Your task to perform on an android device: turn off priority inbox in the gmail app Image 0: 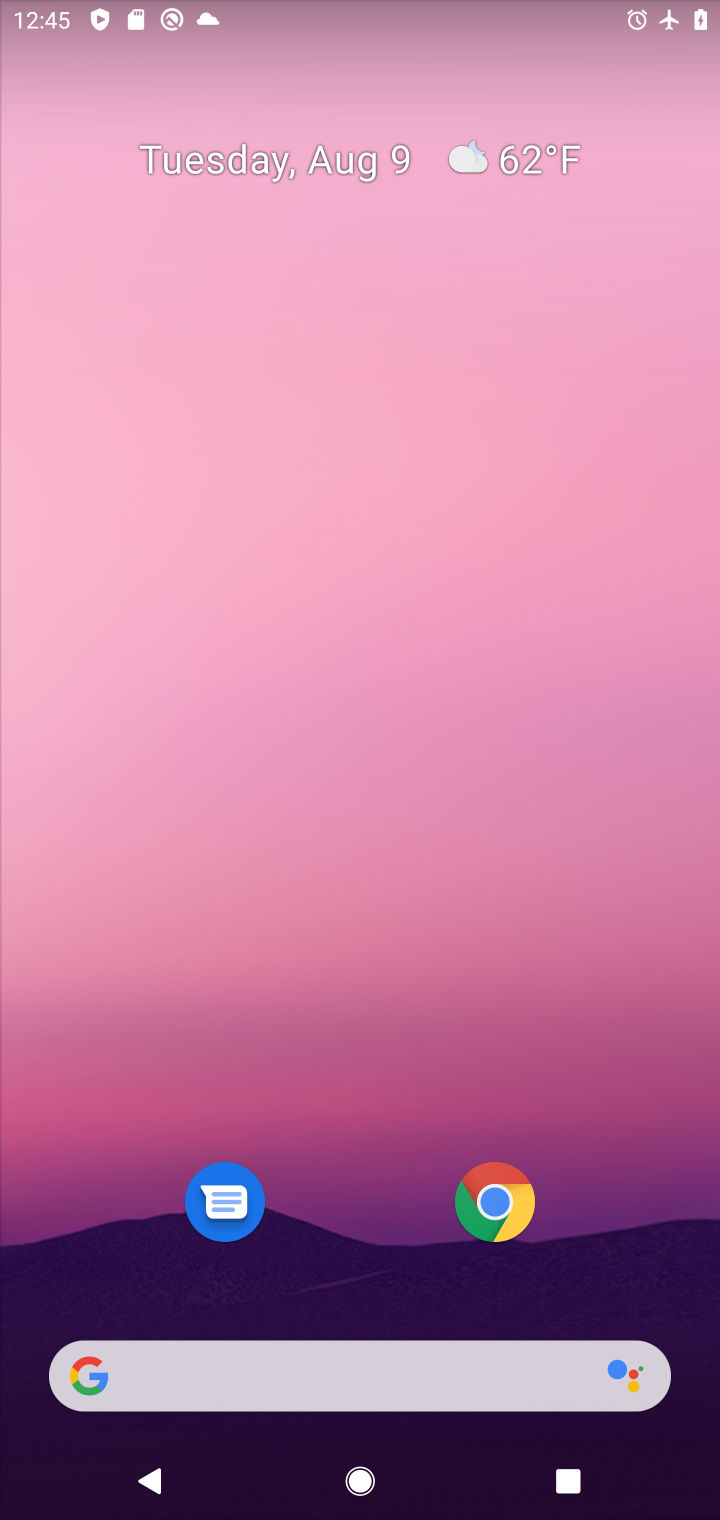
Step 0: click (236, 853)
Your task to perform on an android device: turn off priority inbox in the gmail app Image 1: 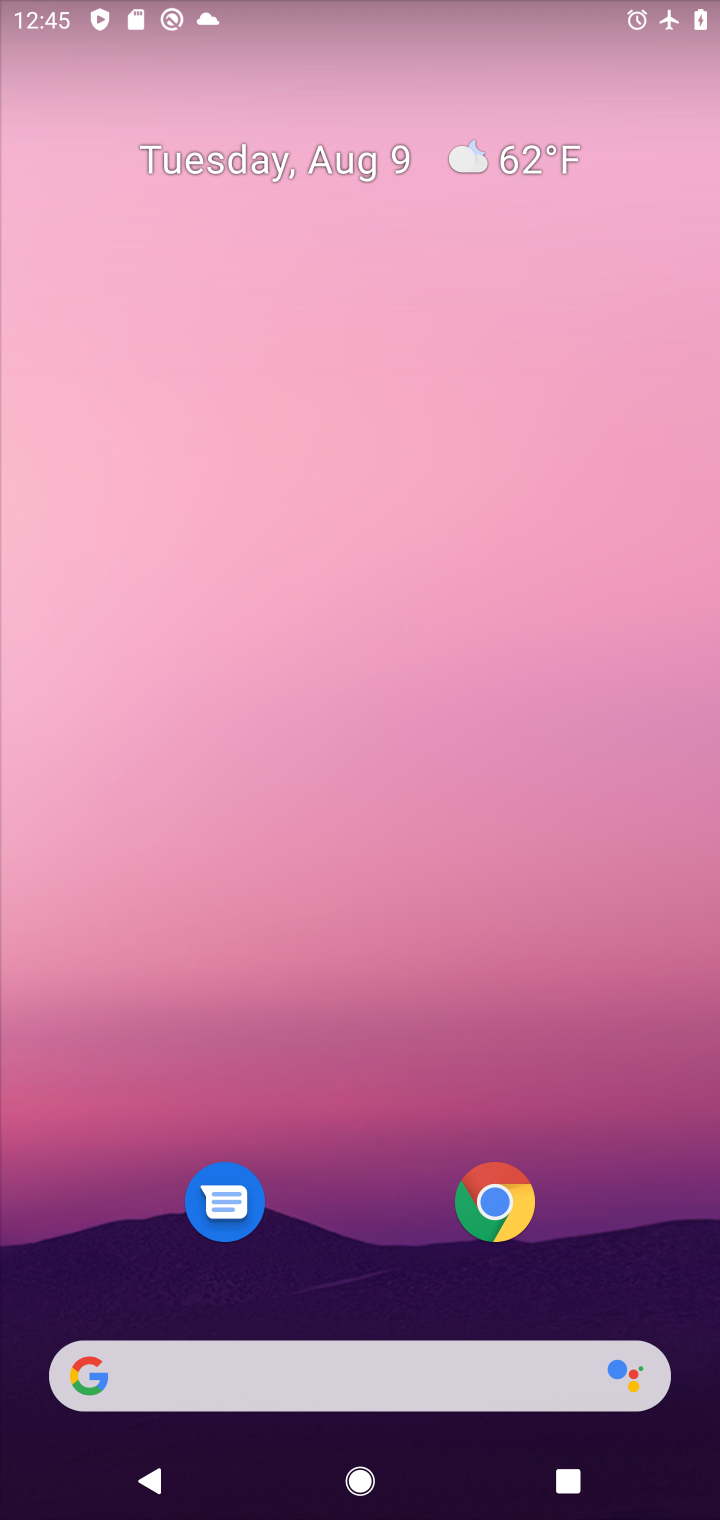
Step 1: drag from (507, 616) to (524, 148)
Your task to perform on an android device: turn off priority inbox in the gmail app Image 2: 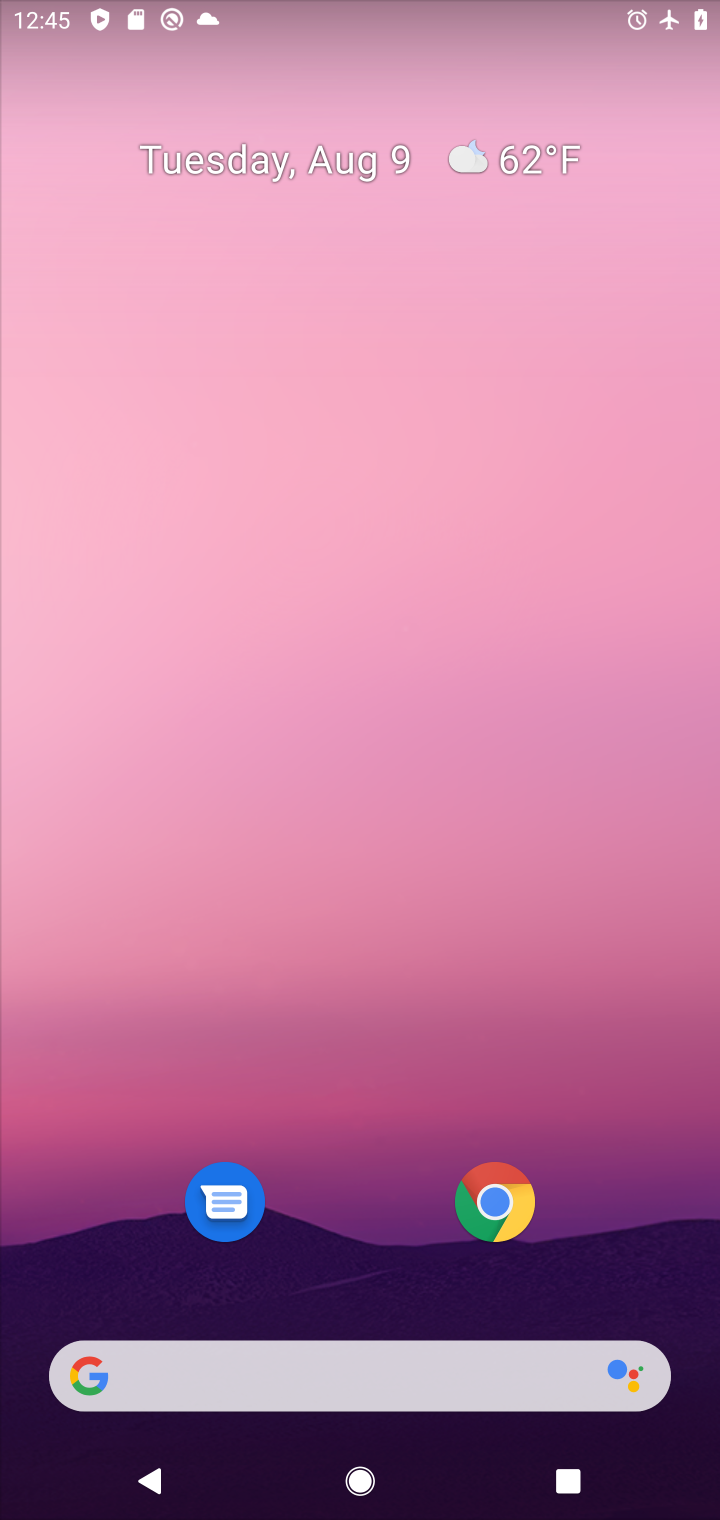
Step 2: click (239, 260)
Your task to perform on an android device: turn off priority inbox in the gmail app Image 3: 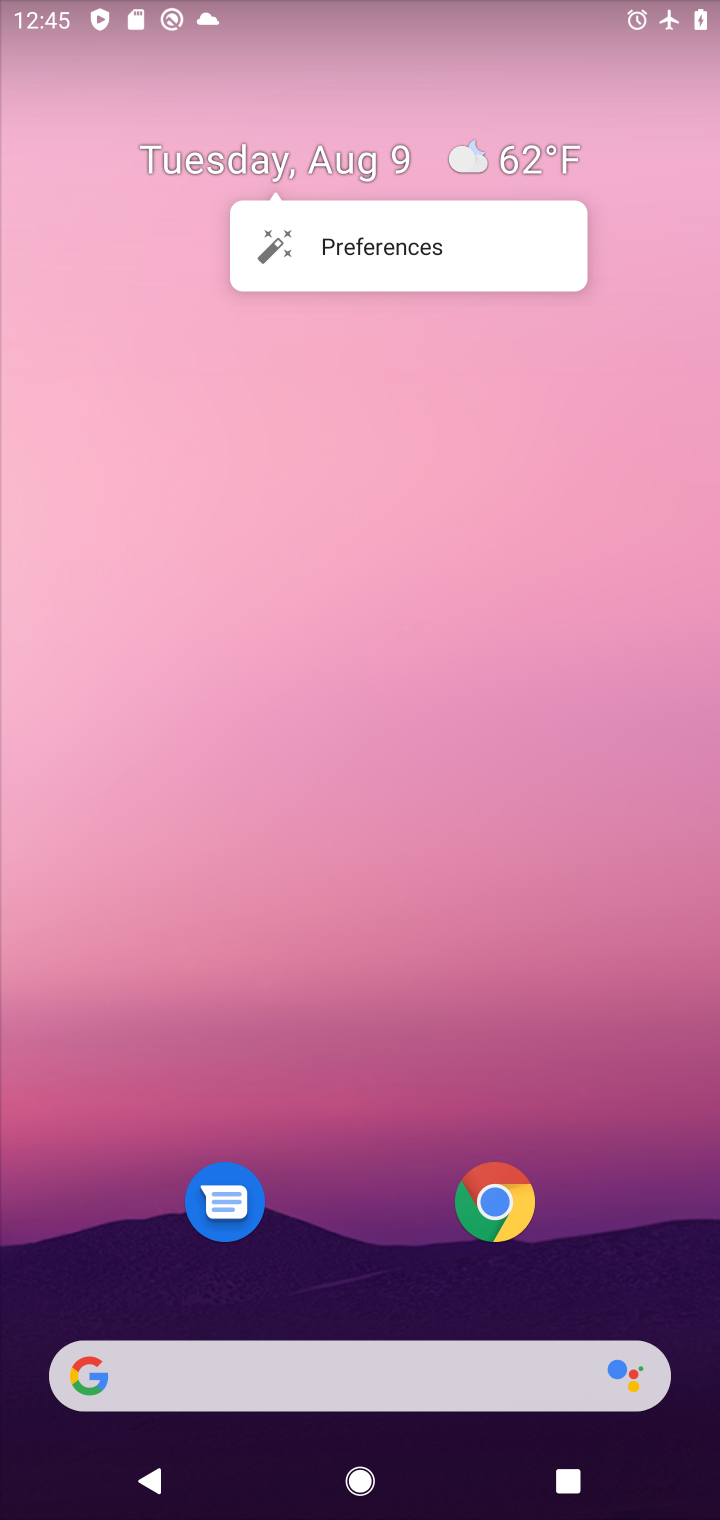
Step 3: click (293, 326)
Your task to perform on an android device: turn off priority inbox in the gmail app Image 4: 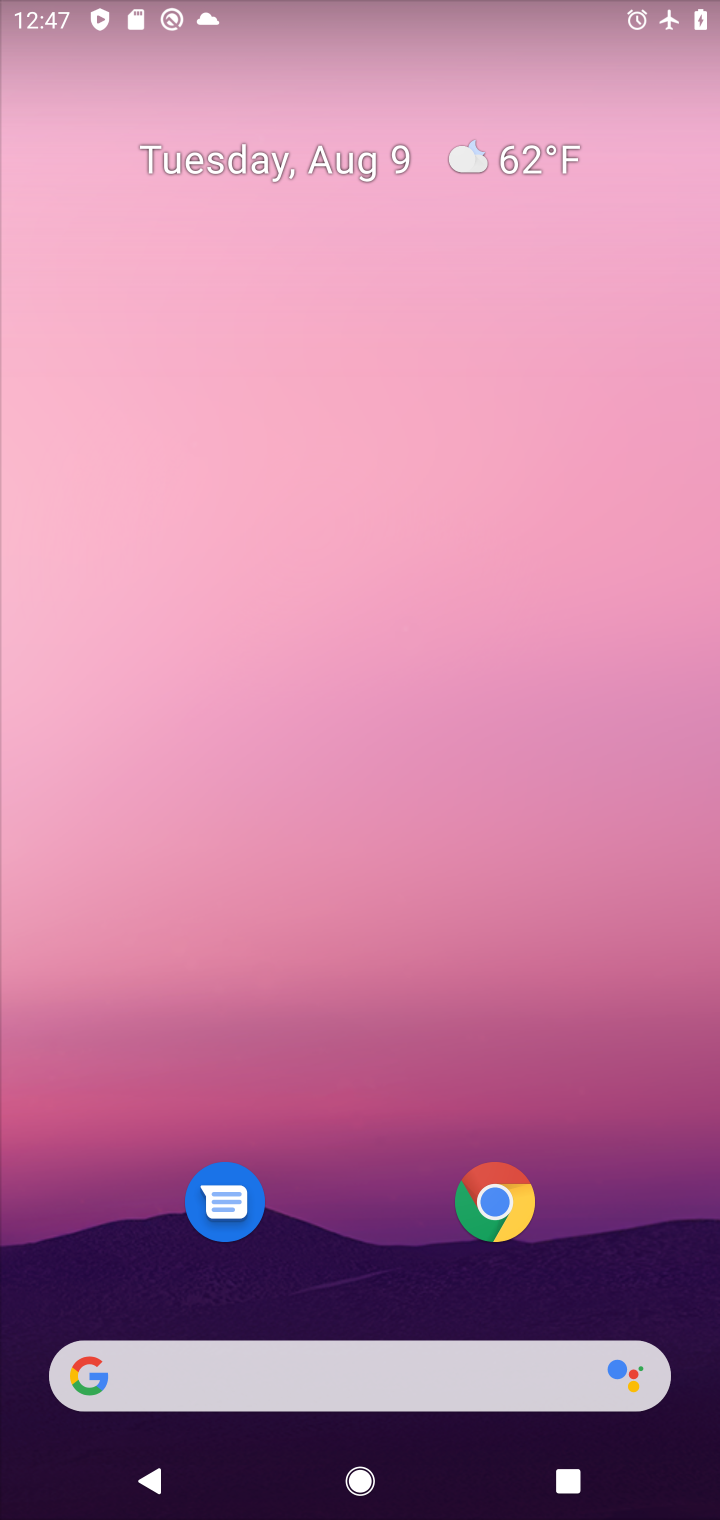
Step 4: drag from (355, 1233) to (427, 40)
Your task to perform on an android device: turn off priority inbox in the gmail app Image 5: 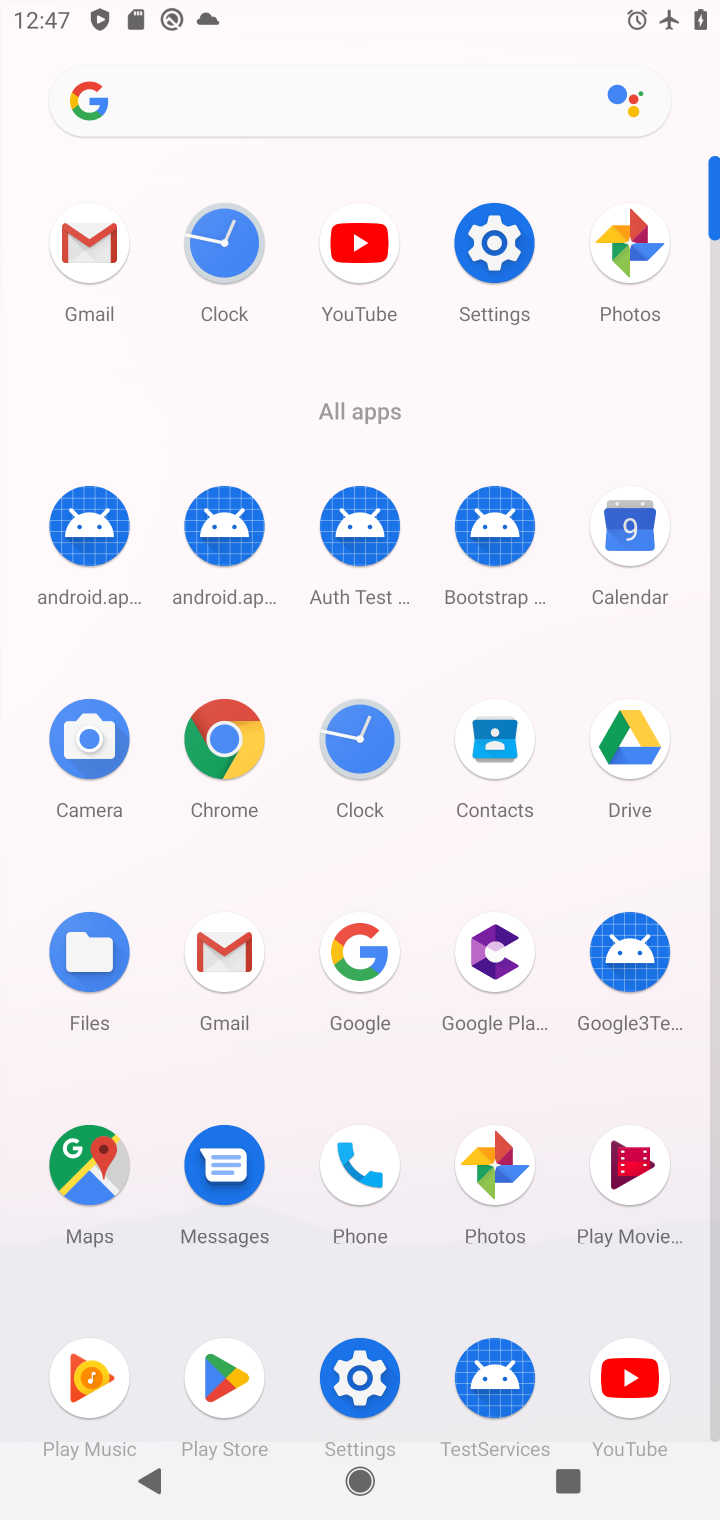
Step 5: click (89, 353)
Your task to perform on an android device: turn off priority inbox in the gmail app Image 6: 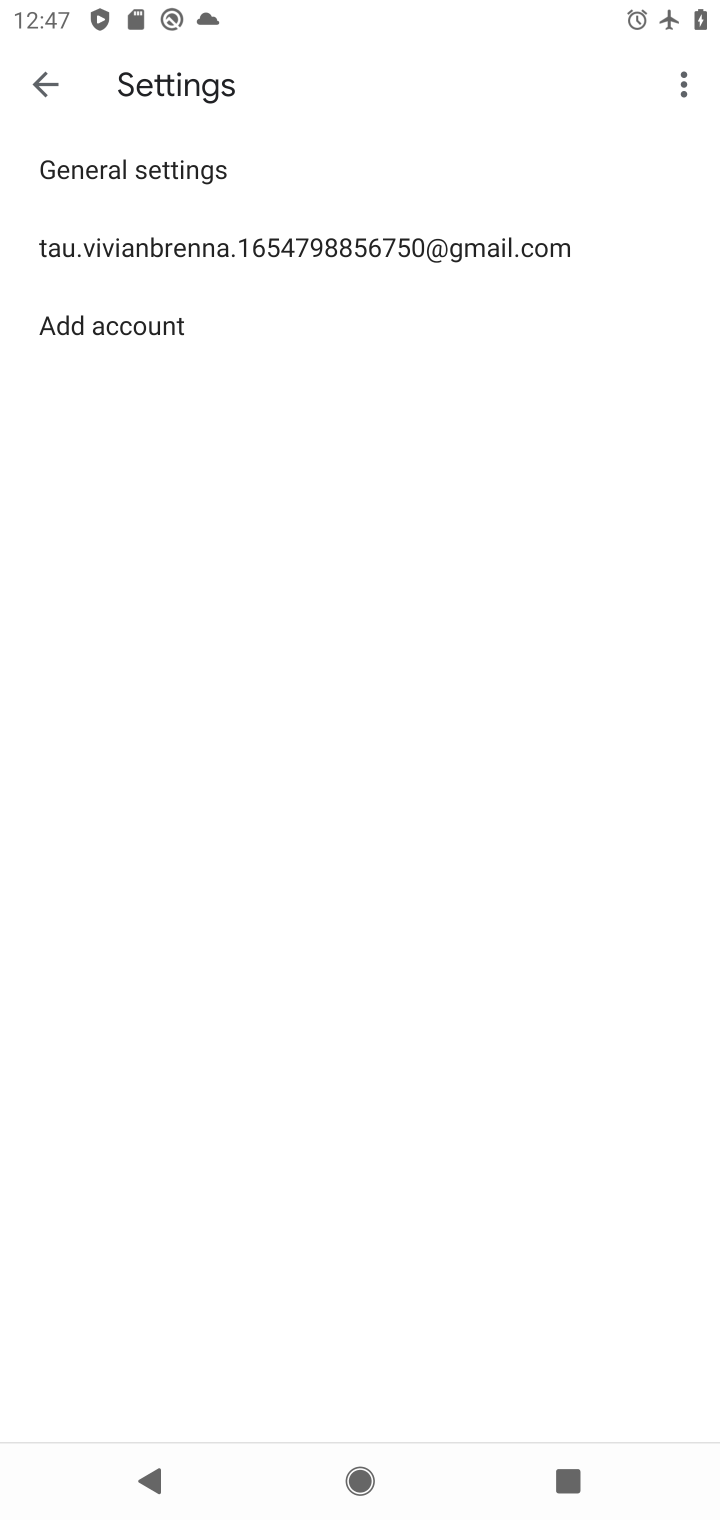
Step 6: click (200, 249)
Your task to perform on an android device: turn off priority inbox in the gmail app Image 7: 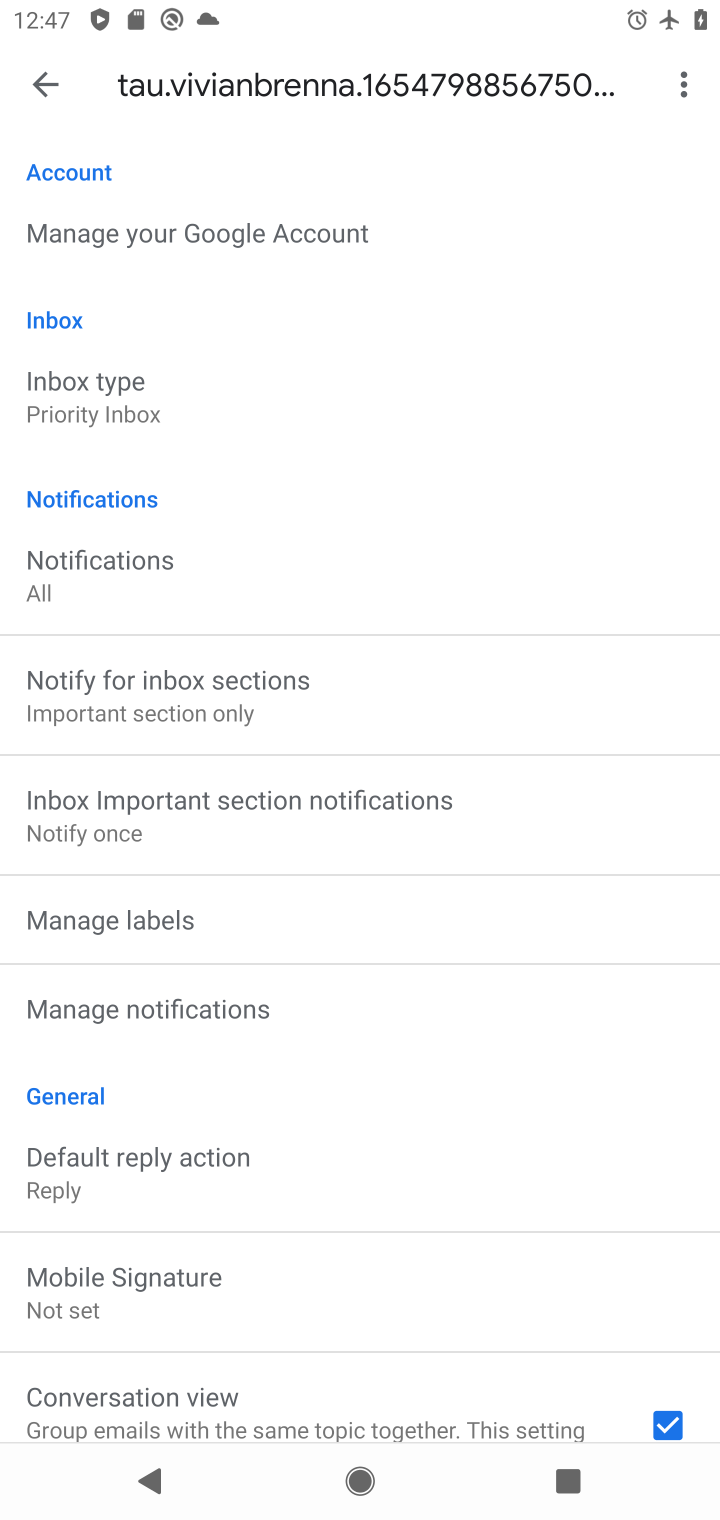
Step 7: click (123, 403)
Your task to perform on an android device: turn off priority inbox in the gmail app Image 8: 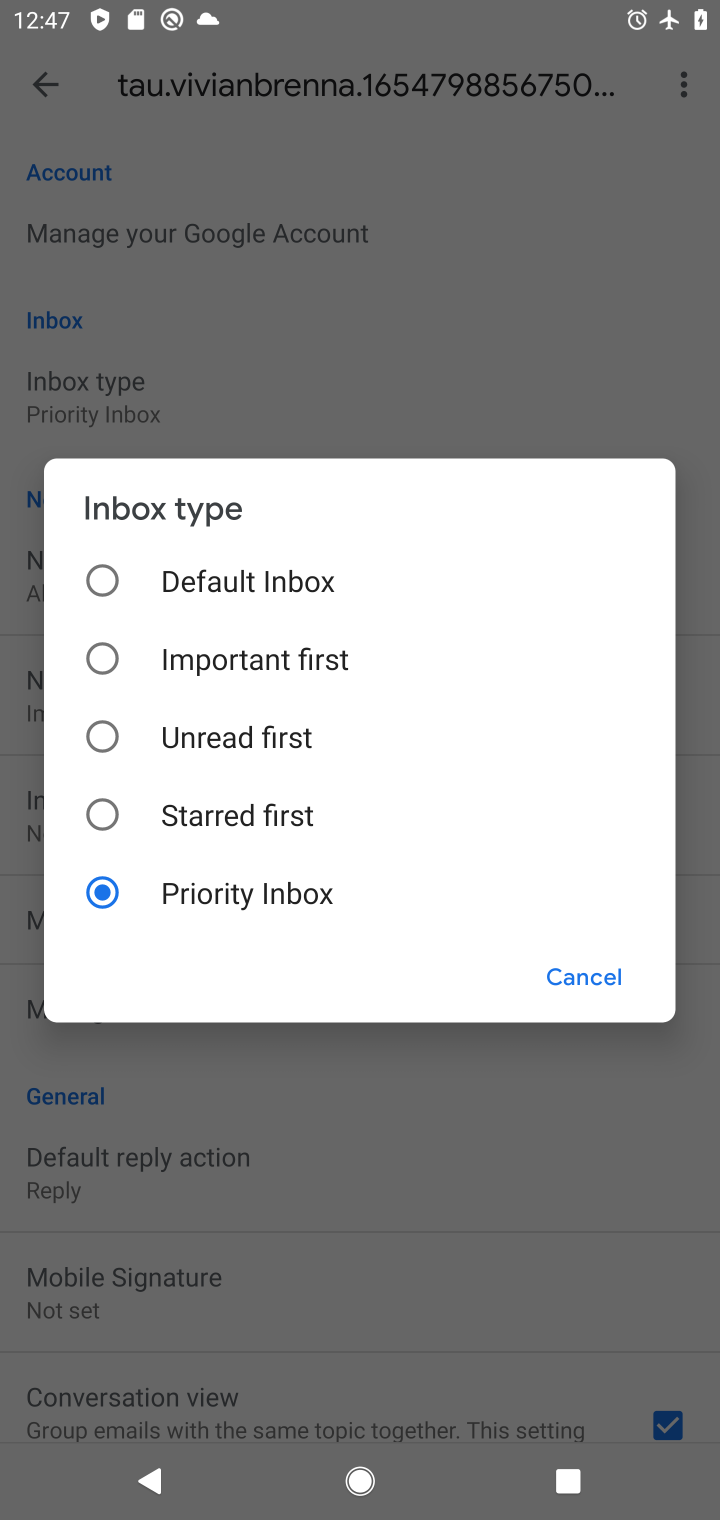
Step 8: click (94, 585)
Your task to perform on an android device: turn off priority inbox in the gmail app Image 9: 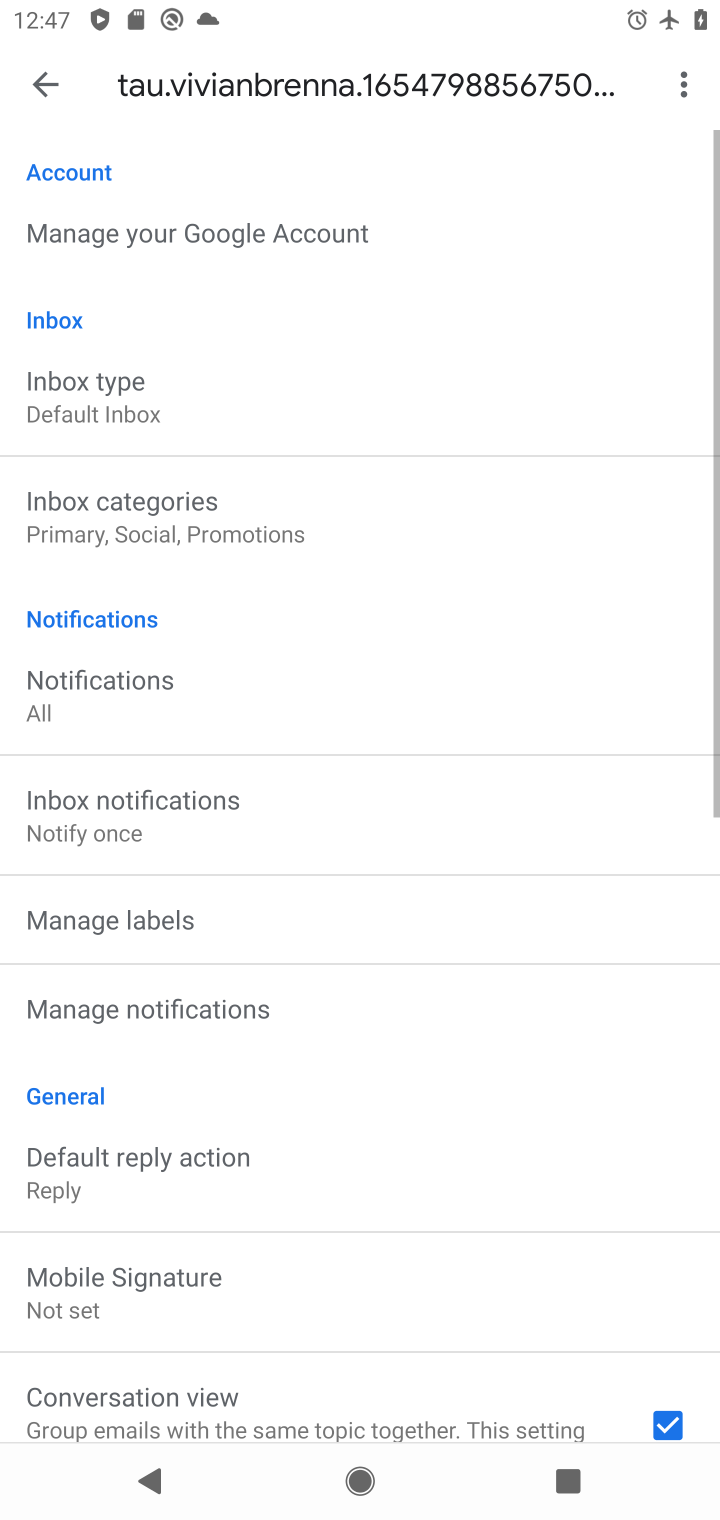
Step 9: task complete